Your task to perform on an android device: turn on javascript in the chrome app Image 0: 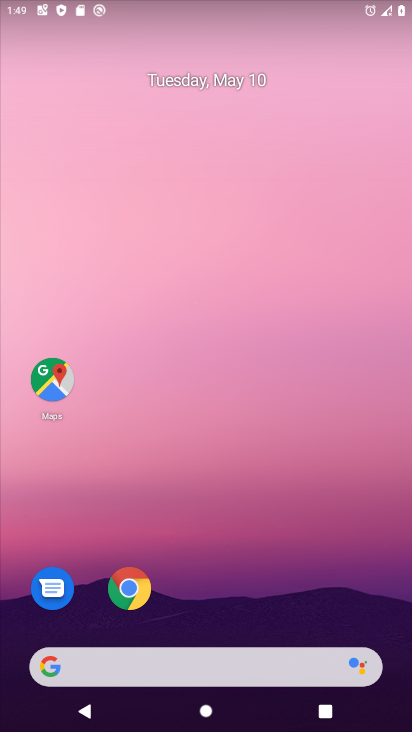
Step 0: drag from (267, 425) to (269, 227)
Your task to perform on an android device: turn on javascript in the chrome app Image 1: 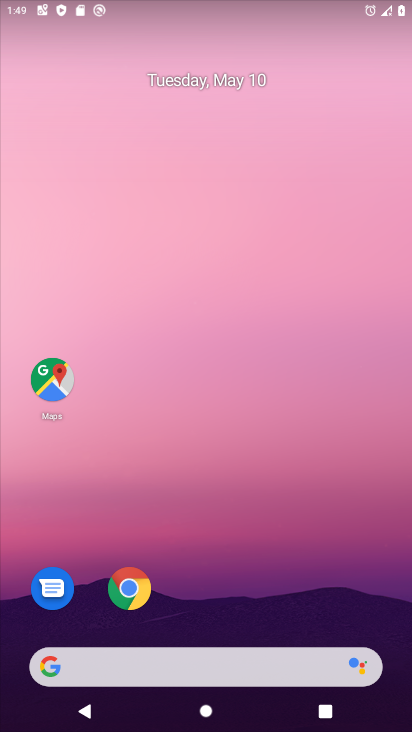
Step 1: drag from (258, 538) to (265, 189)
Your task to perform on an android device: turn on javascript in the chrome app Image 2: 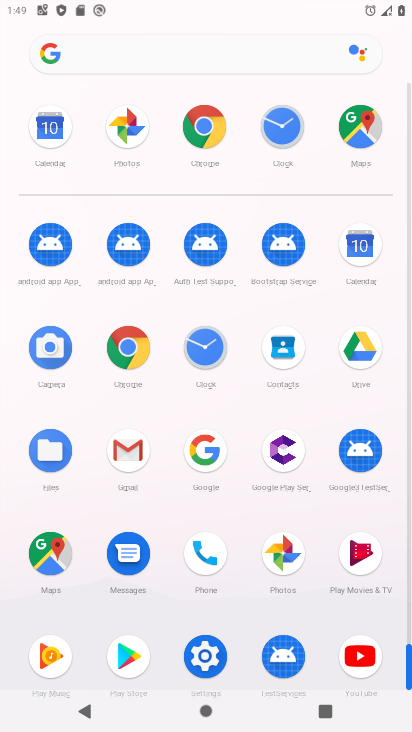
Step 2: click (204, 654)
Your task to perform on an android device: turn on javascript in the chrome app Image 3: 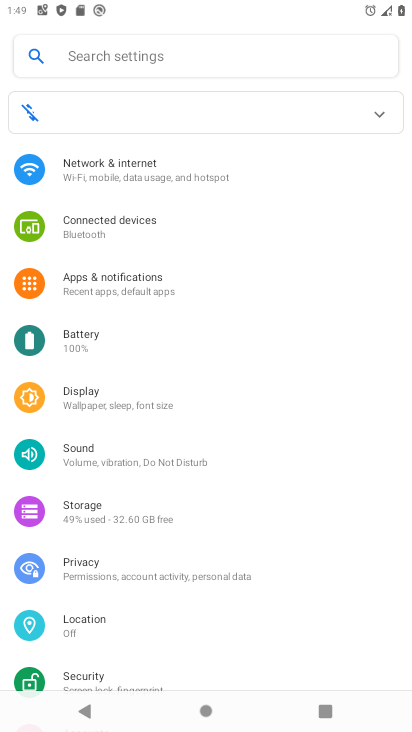
Step 3: press home button
Your task to perform on an android device: turn on javascript in the chrome app Image 4: 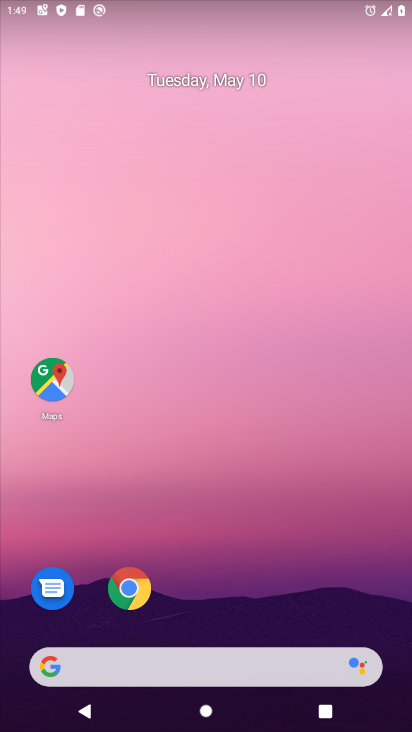
Step 4: click (119, 584)
Your task to perform on an android device: turn on javascript in the chrome app Image 5: 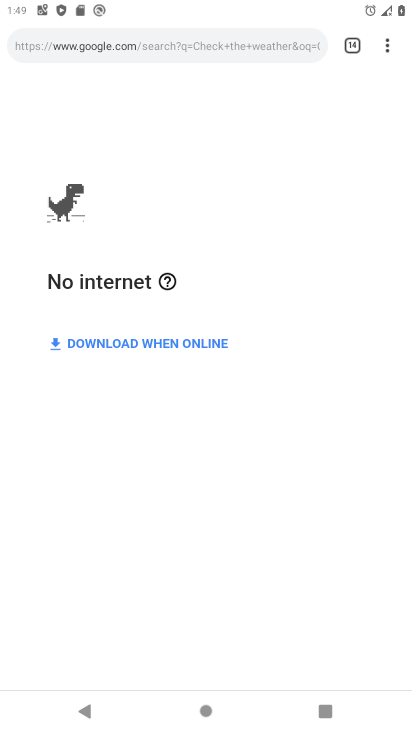
Step 5: click (388, 40)
Your task to perform on an android device: turn on javascript in the chrome app Image 6: 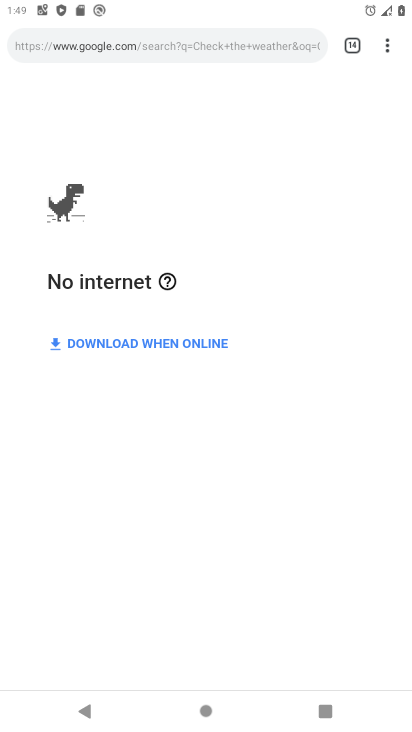
Step 6: click (375, 43)
Your task to perform on an android device: turn on javascript in the chrome app Image 7: 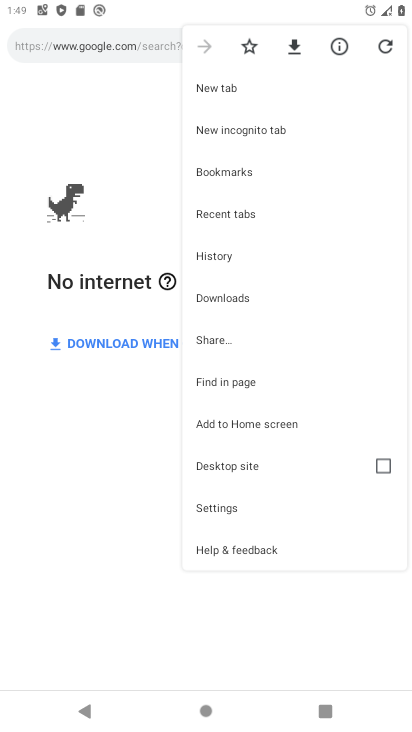
Step 7: click (233, 505)
Your task to perform on an android device: turn on javascript in the chrome app Image 8: 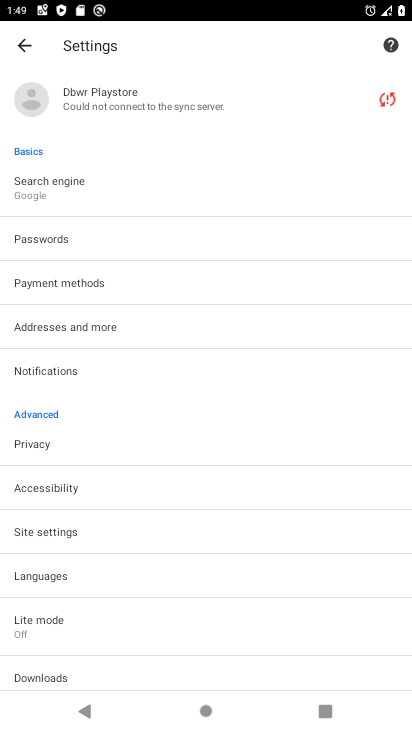
Step 8: click (114, 524)
Your task to perform on an android device: turn on javascript in the chrome app Image 9: 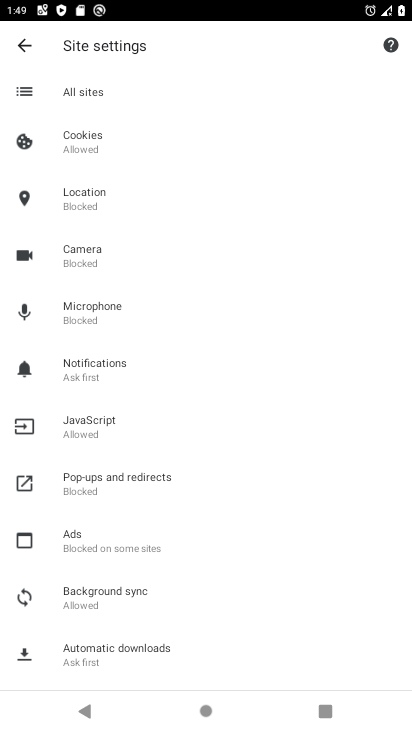
Step 9: click (124, 418)
Your task to perform on an android device: turn on javascript in the chrome app Image 10: 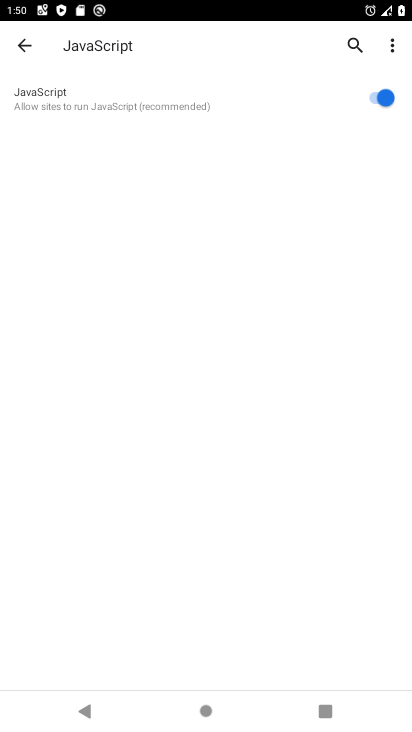
Step 10: task complete